Your task to perform on an android device: turn off sleep mode Image 0: 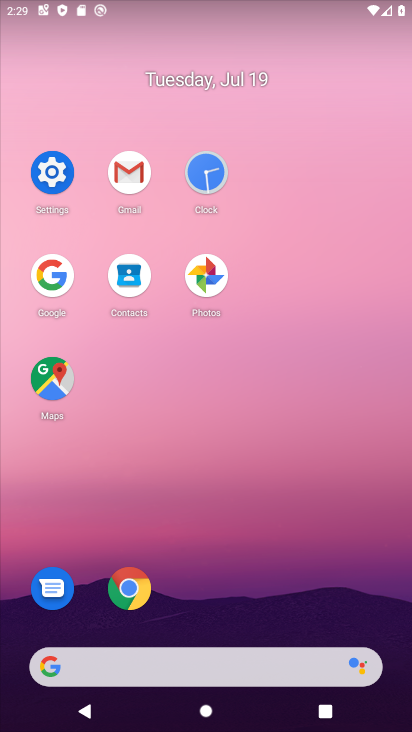
Step 0: click (46, 177)
Your task to perform on an android device: turn off sleep mode Image 1: 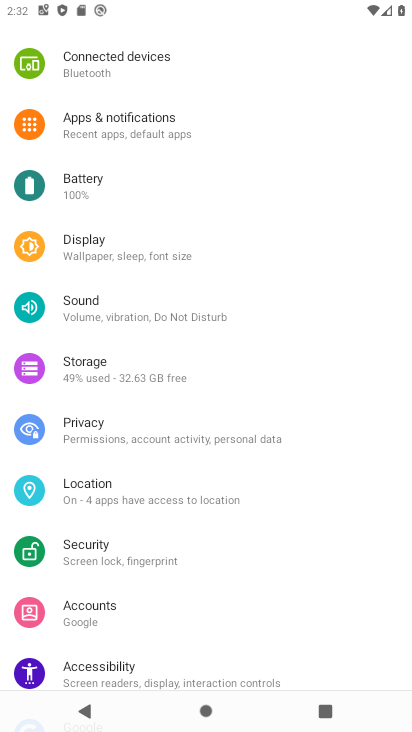
Step 1: click (143, 252)
Your task to perform on an android device: turn off sleep mode Image 2: 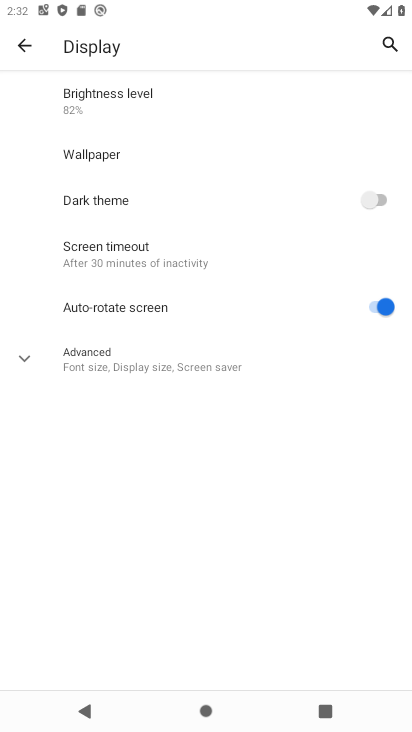
Step 2: click (144, 245)
Your task to perform on an android device: turn off sleep mode Image 3: 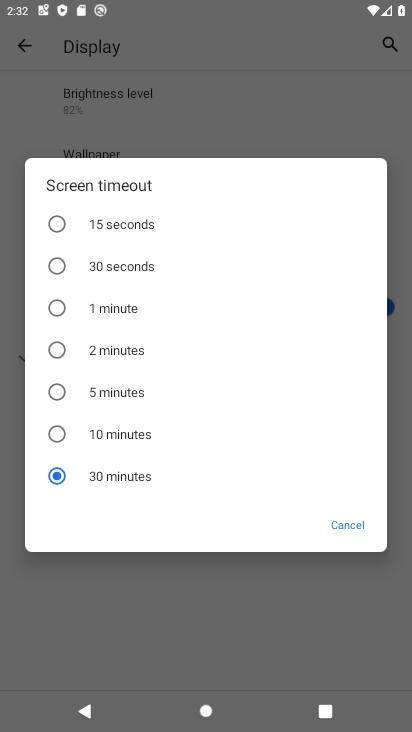
Step 3: task complete